Your task to perform on an android device: Show the shopping cart on newegg. Add "razer naga" to the cart on newegg Image 0: 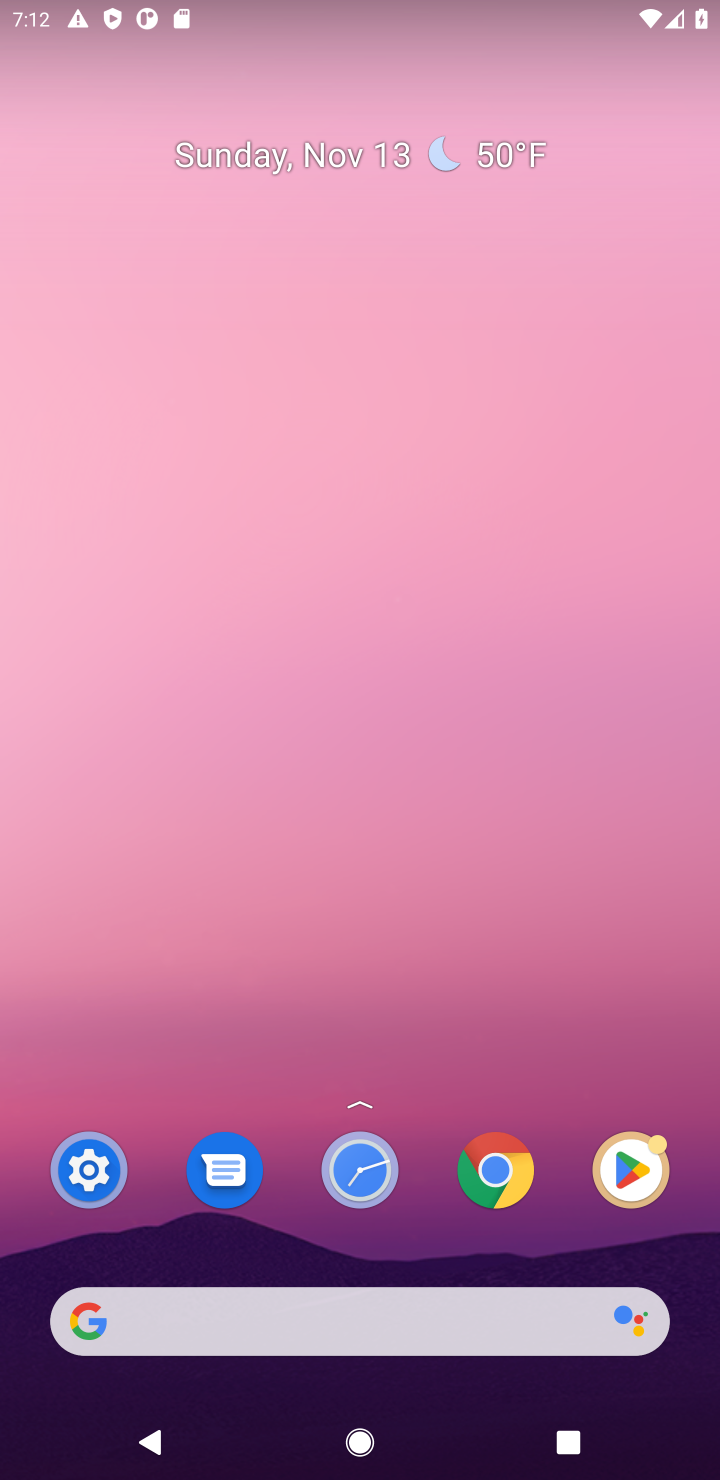
Step 0: click (360, 1324)
Your task to perform on an android device: Show the shopping cart on newegg. Add "razer naga" to the cart on newegg Image 1: 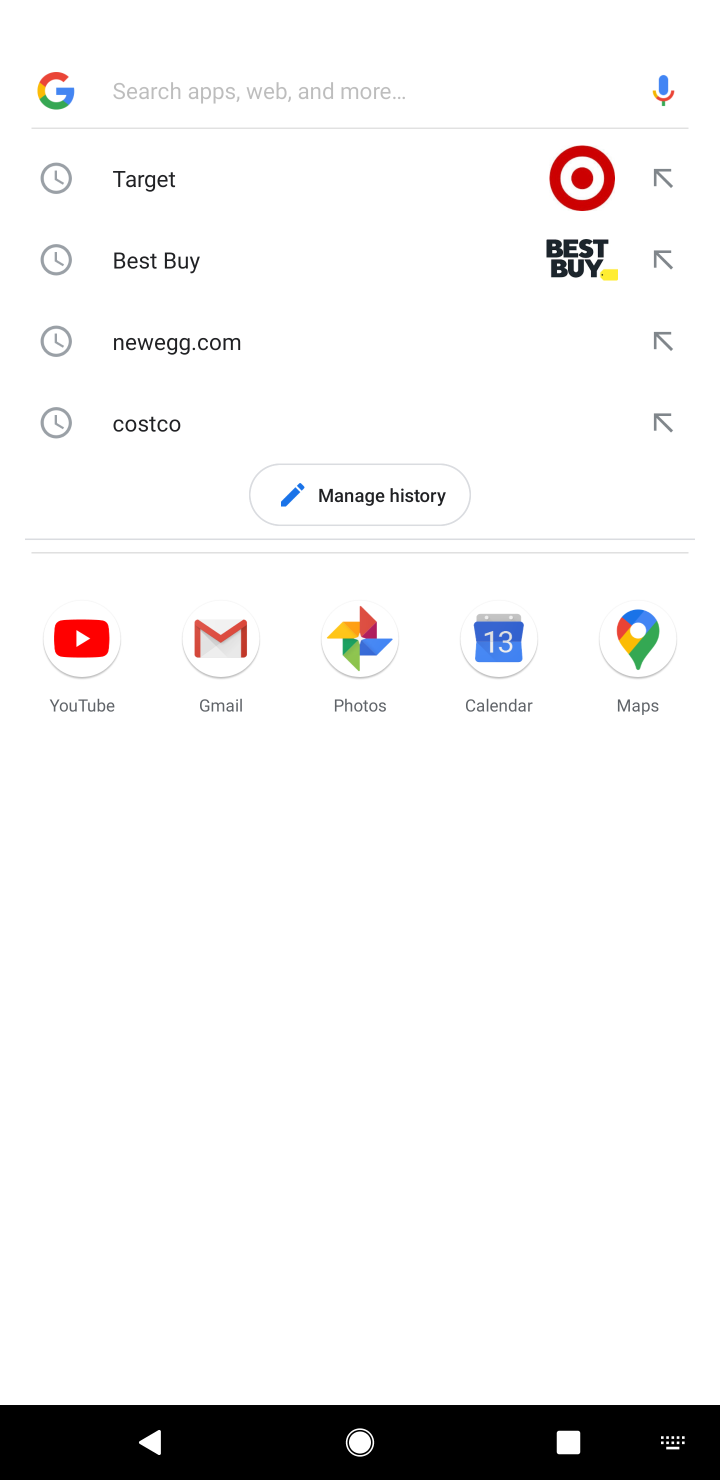
Step 1: type "newegg"
Your task to perform on an android device: Show the shopping cart on newegg. Add "razer naga" to the cart on newegg Image 2: 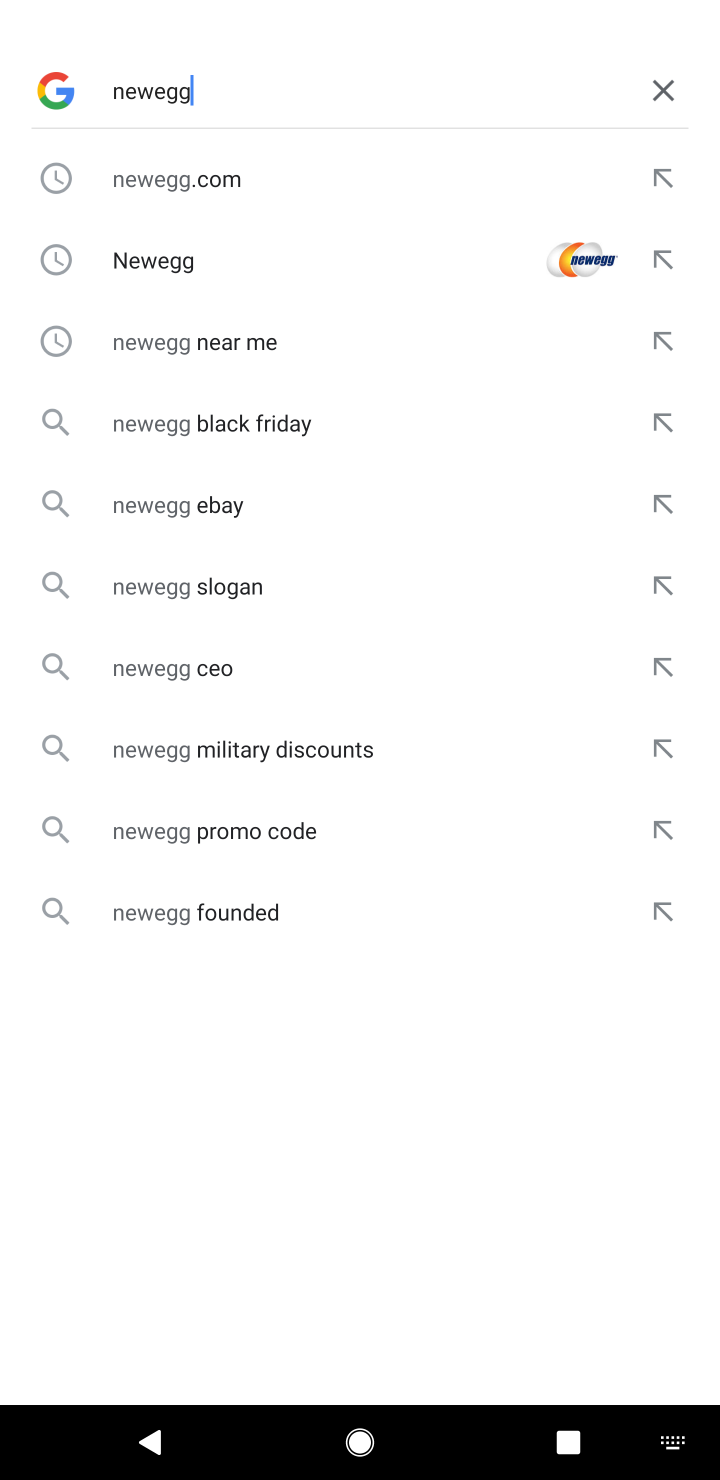
Step 2: click (313, 261)
Your task to perform on an android device: Show the shopping cart on newegg. Add "razer naga" to the cart on newegg Image 3: 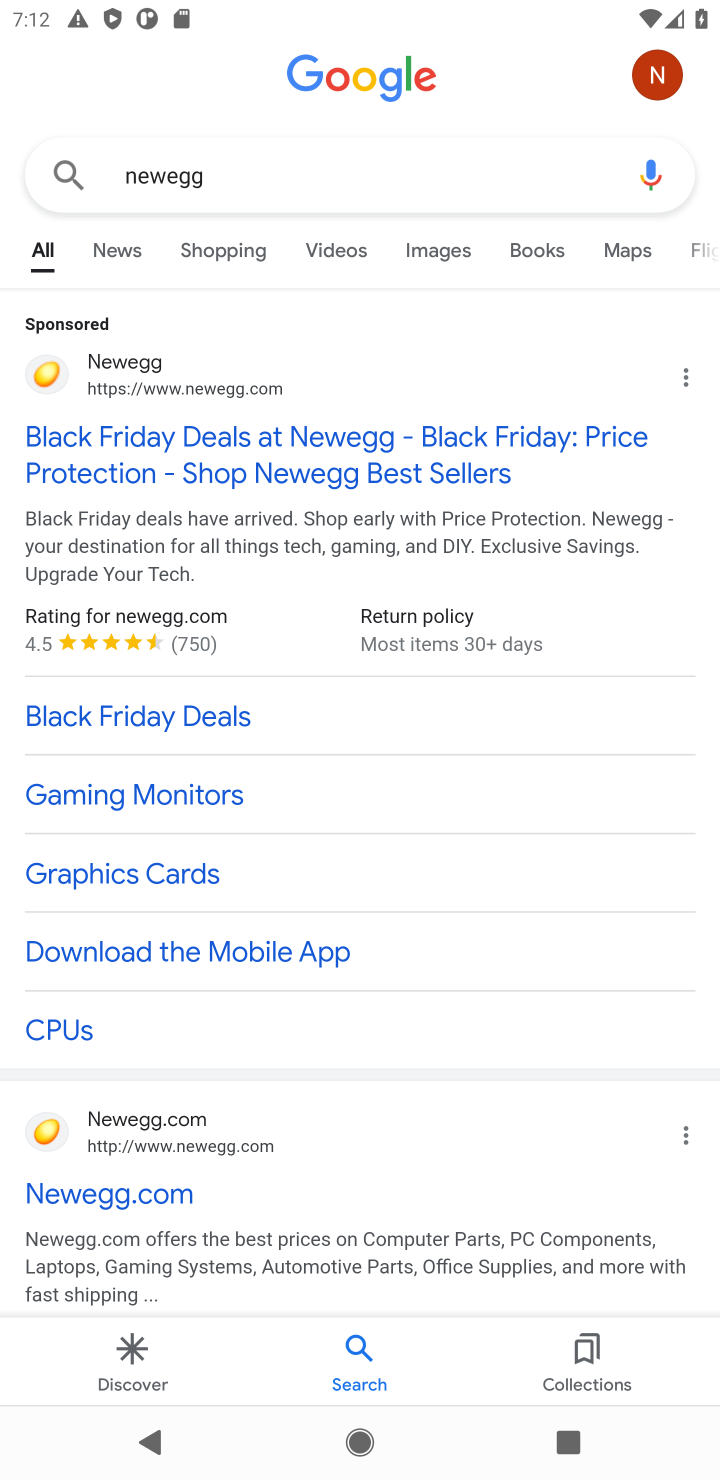
Step 3: click (305, 486)
Your task to perform on an android device: Show the shopping cart on newegg. Add "razer naga" to the cart on newegg Image 4: 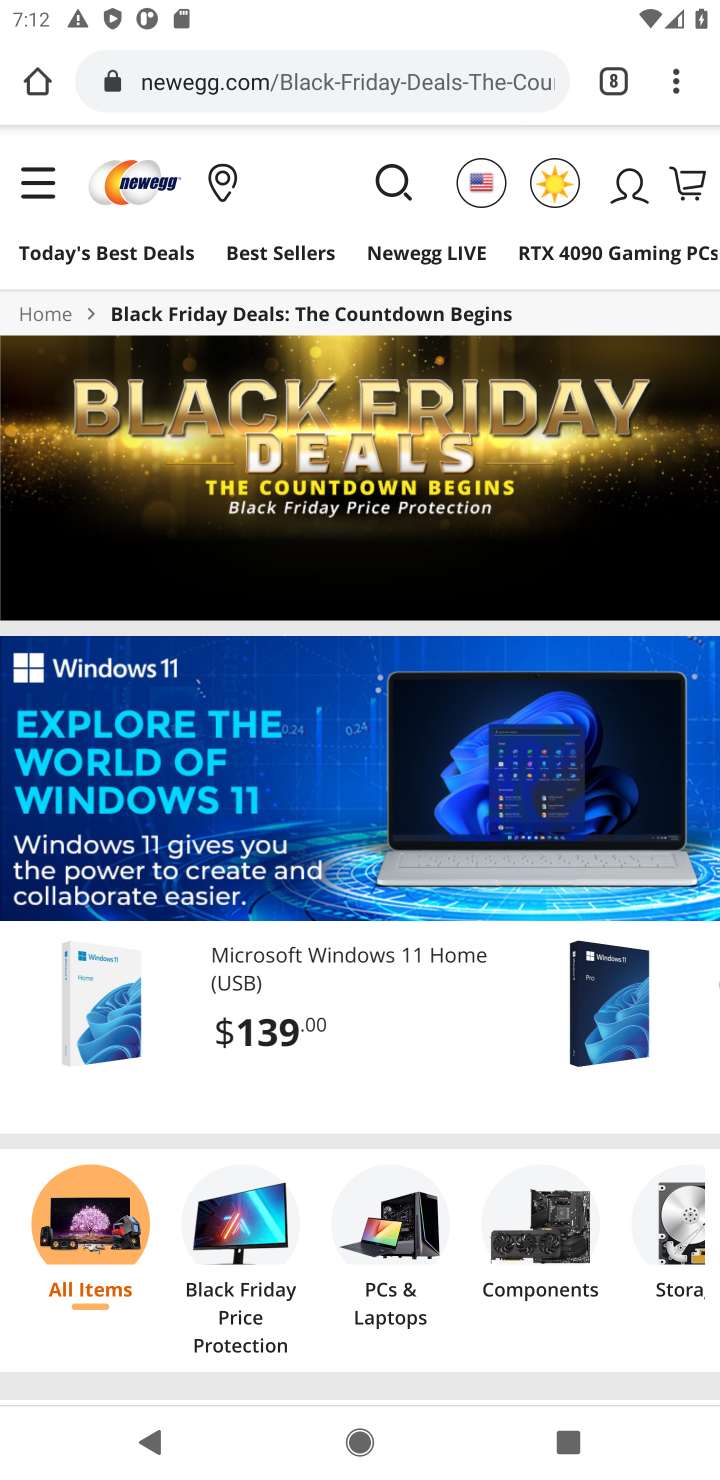
Step 4: task complete